Your task to perform on an android device: set the timer Image 0: 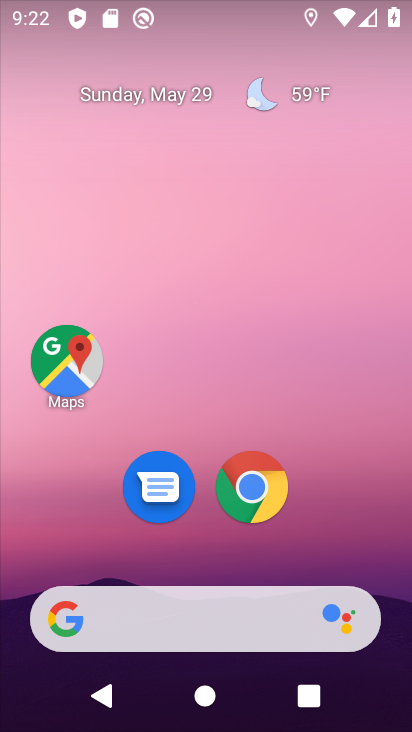
Step 0: drag from (320, 561) to (262, 220)
Your task to perform on an android device: set the timer Image 1: 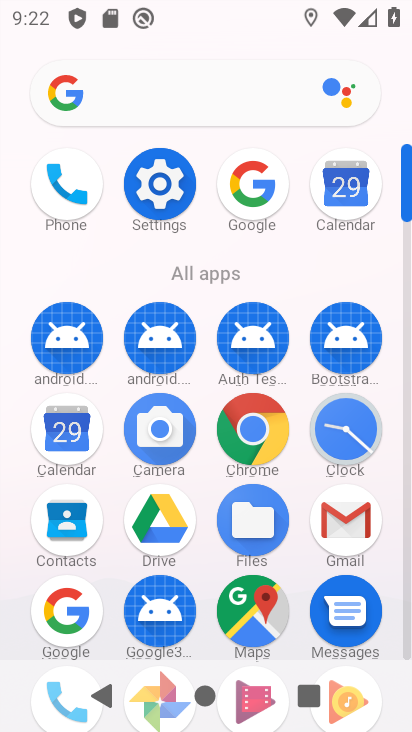
Step 1: click (344, 430)
Your task to perform on an android device: set the timer Image 2: 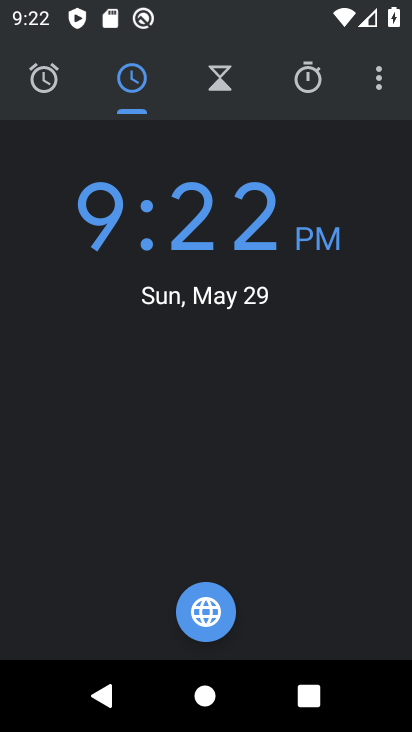
Step 2: click (223, 82)
Your task to perform on an android device: set the timer Image 3: 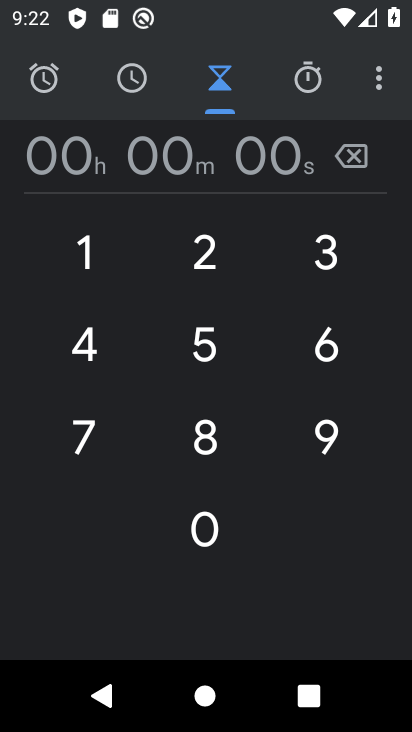
Step 3: type "1235"
Your task to perform on an android device: set the timer Image 4: 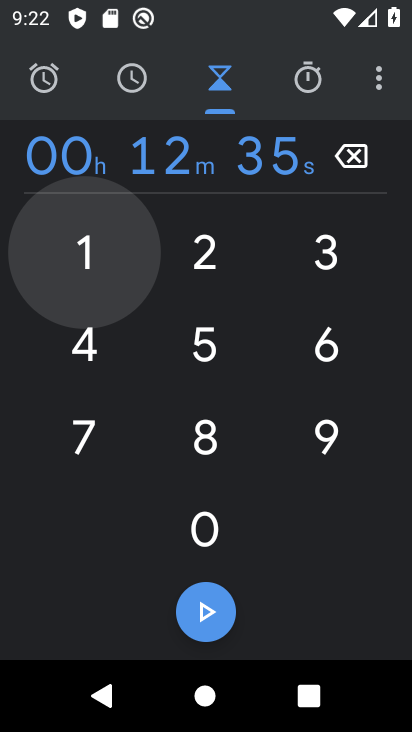
Step 4: click (207, 621)
Your task to perform on an android device: set the timer Image 5: 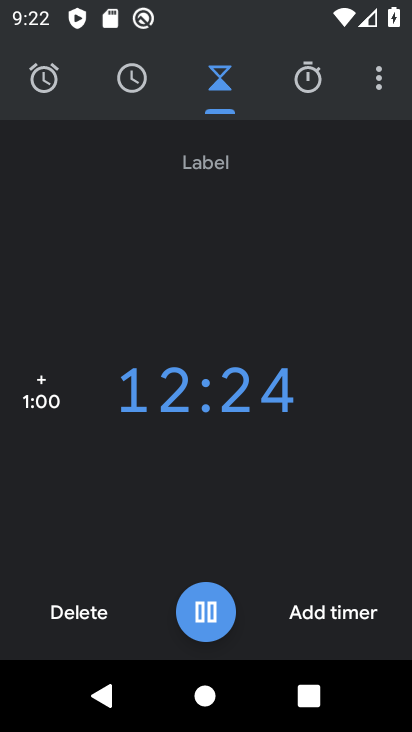
Step 5: click (207, 610)
Your task to perform on an android device: set the timer Image 6: 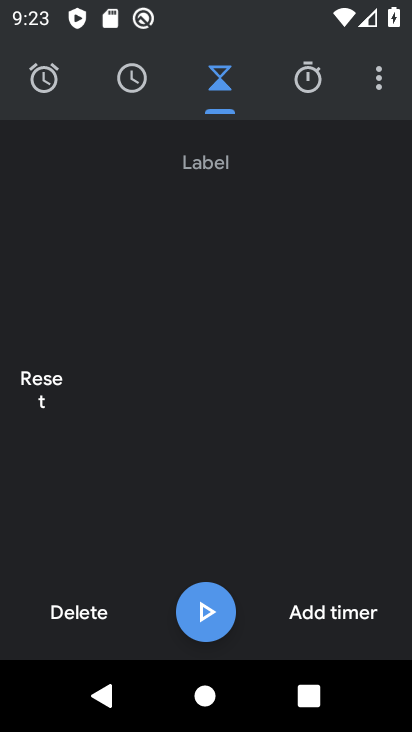
Step 6: task complete